Your task to perform on an android device: change the clock display to analog Image 0: 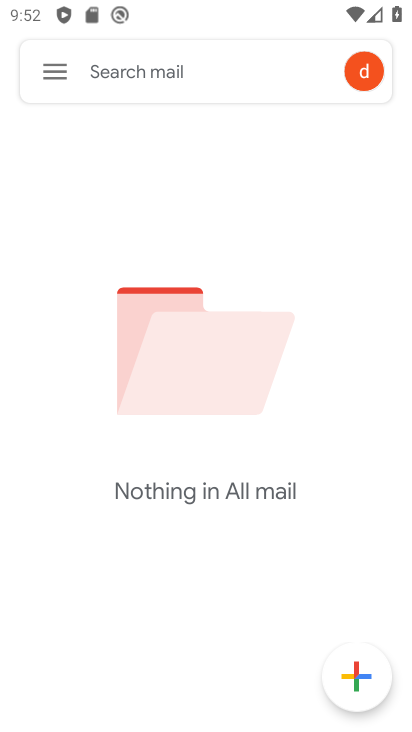
Step 0: press home button
Your task to perform on an android device: change the clock display to analog Image 1: 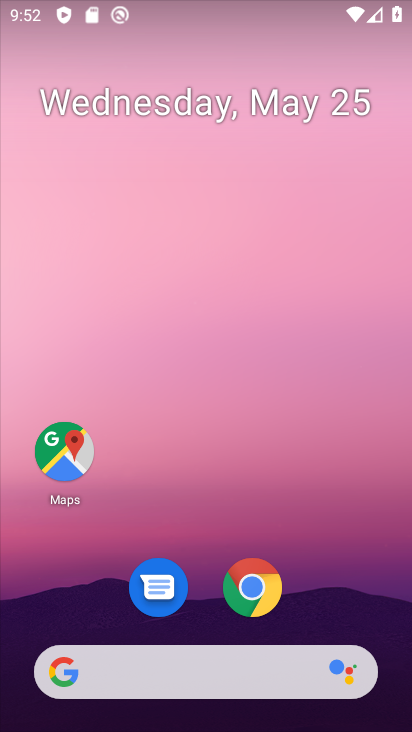
Step 1: drag from (213, 608) to (272, 103)
Your task to perform on an android device: change the clock display to analog Image 2: 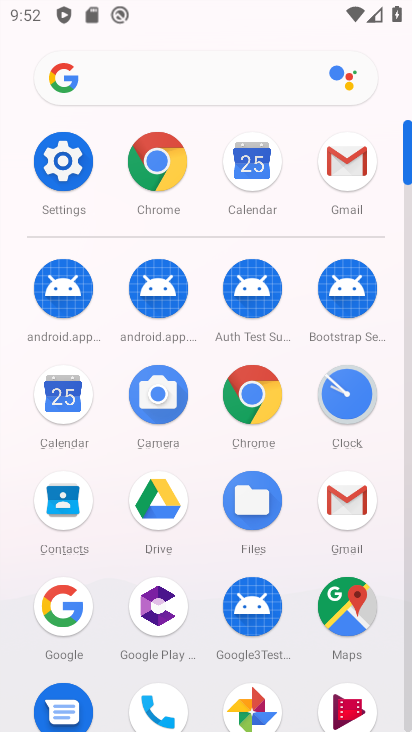
Step 2: click (368, 397)
Your task to perform on an android device: change the clock display to analog Image 3: 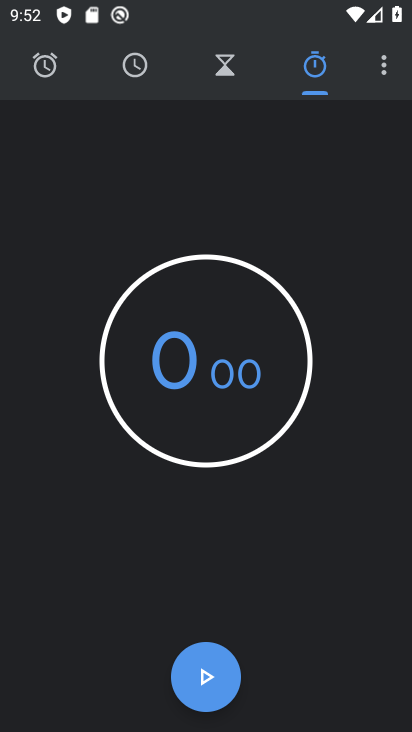
Step 3: click (389, 67)
Your task to perform on an android device: change the clock display to analog Image 4: 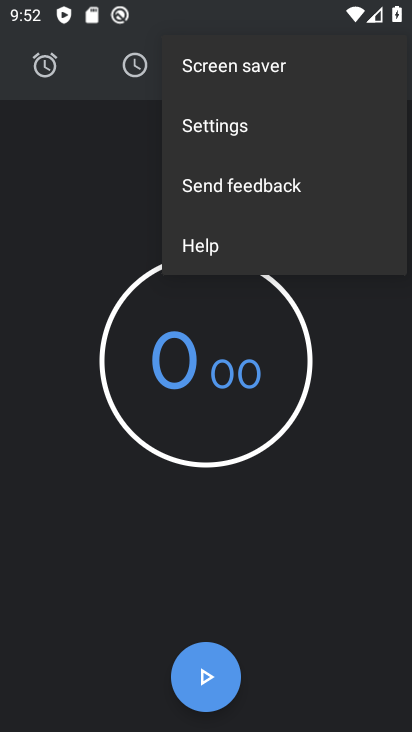
Step 4: click (223, 137)
Your task to perform on an android device: change the clock display to analog Image 5: 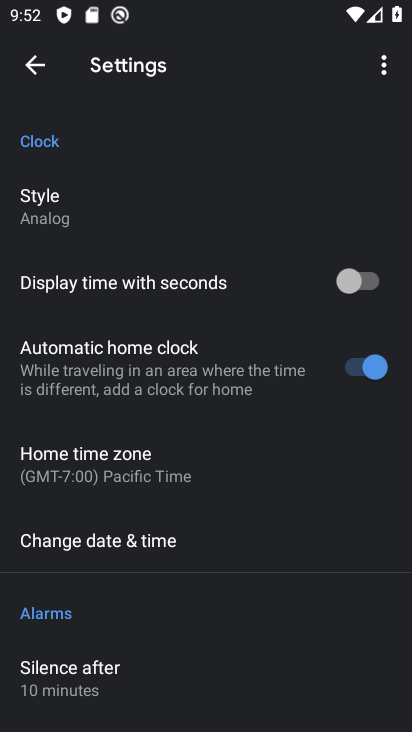
Step 5: click (95, 212)
Your task to perform on an android device: change the clock display to analog Image 6: 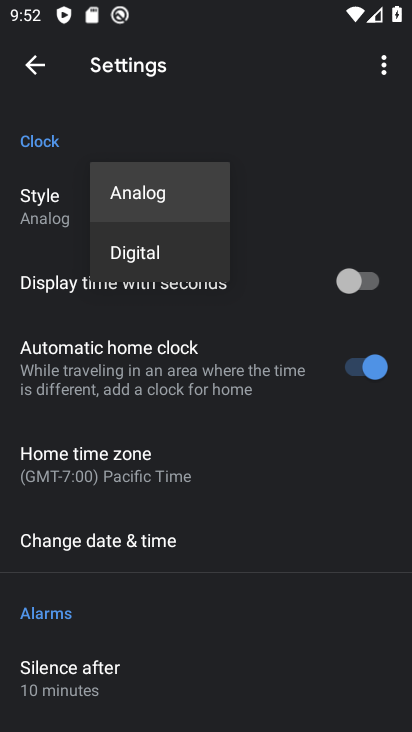
Step 6: task complete